Your task to perform on an android device: See recent photos Image 0: 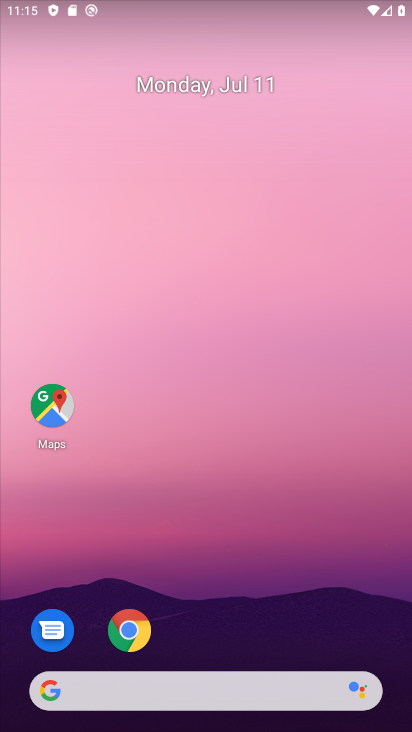
Step 0: drag from (317, 596) to (351, 296)
Your task to perform on an android device: See recent photos Image 1: 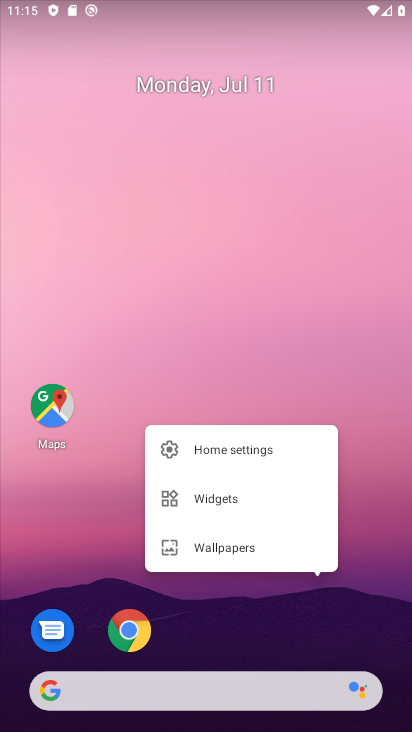
Step 1: drag from (349, 628) to (384, 277)
Your task to perform on an android device: See recent photos Image 2: 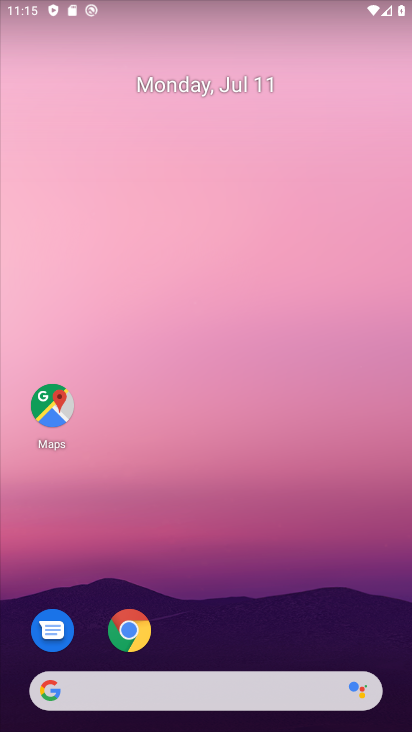
Step 2: drag from (307, 648) to (325, 185)
Your task to perform on an android device: See recent photos Image 3: 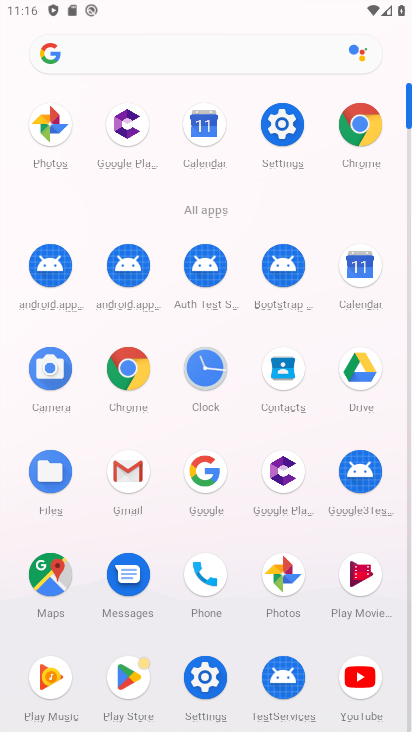
Step 3: click (288, 567)
Your task to perform on an android device: See recent photos Image 4: 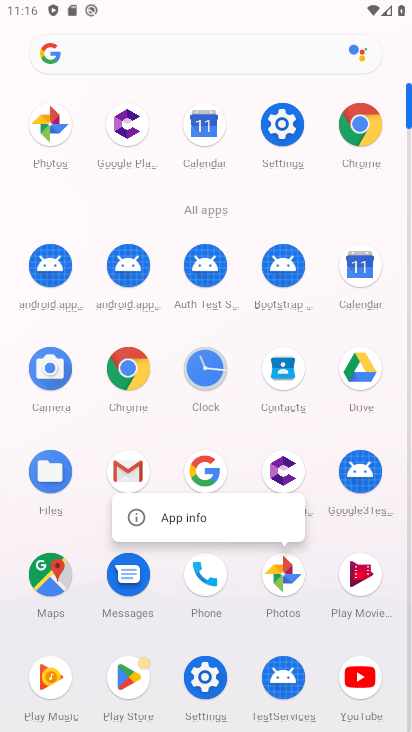
Step 4: click (306, 583)
Your task to perform on an android device: See recent photos Image 5: 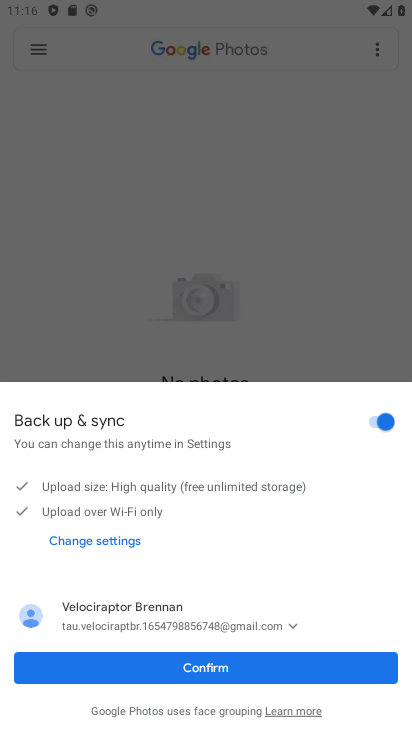
Step 5: click (192, 631)
Your task to perform on an android device: See recent photos Image 6: 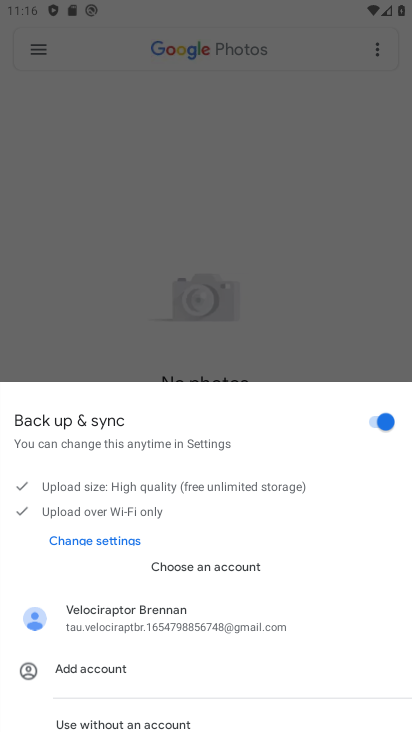
Step 6: click (187, 665)
Your task to perform on an android device: See recent photos Image 7: 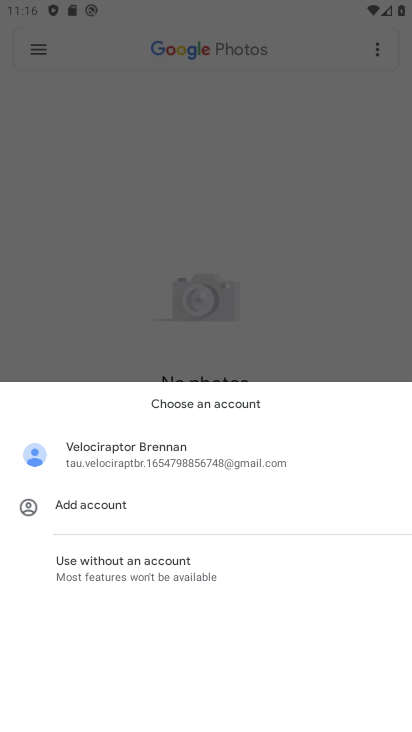
Step 7: click (161, 447)
Your task to perform on an android device: See recent photos Image 8: 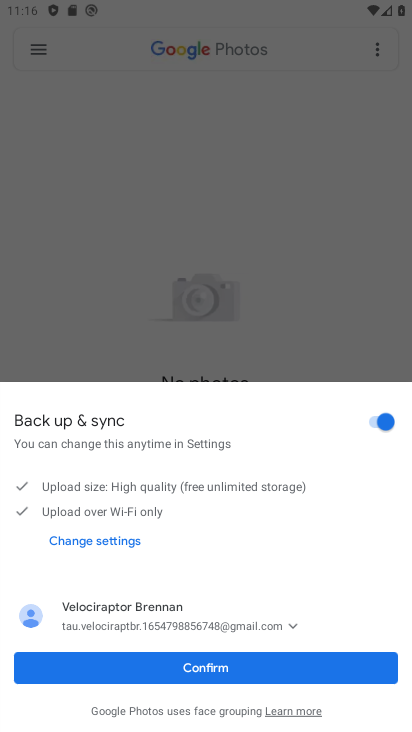
Step 8: click (163, 674)
Your task to perform on an android device: See recent photos Image 9: 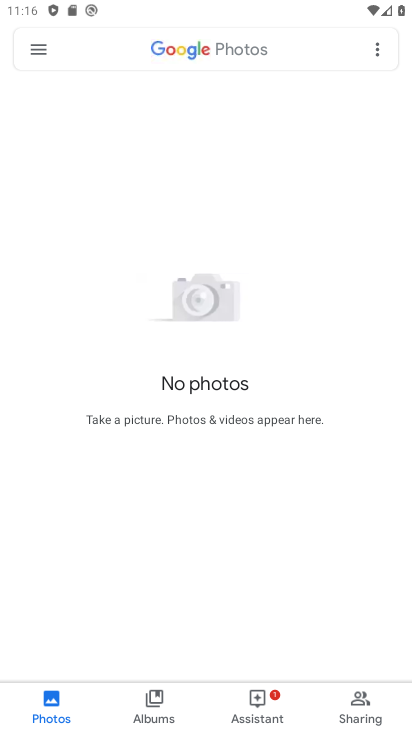
Step 9: task complete